Your task to perform on an android device: turn on showing notifications on the lock screen Image 0: 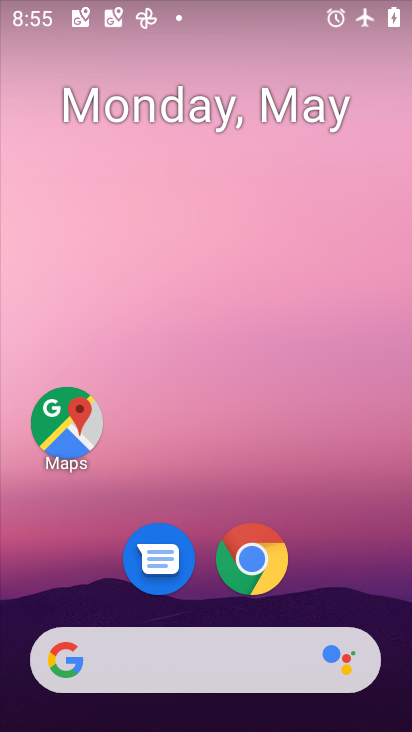
Step 0: drag from (382, 578) to (294, 69)
Your task to perform on an android device: turn on showing notifications on the lock screen Image 1: 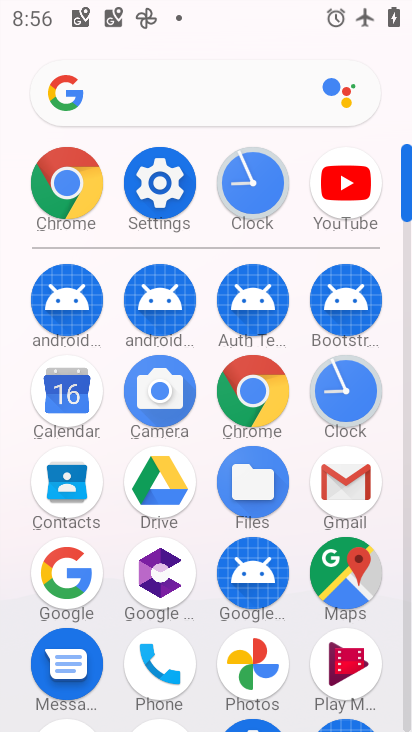
Step 1: click (190, 196)
Your task to perform on an android device: turn on showing notifications on the lock screen Image 2: 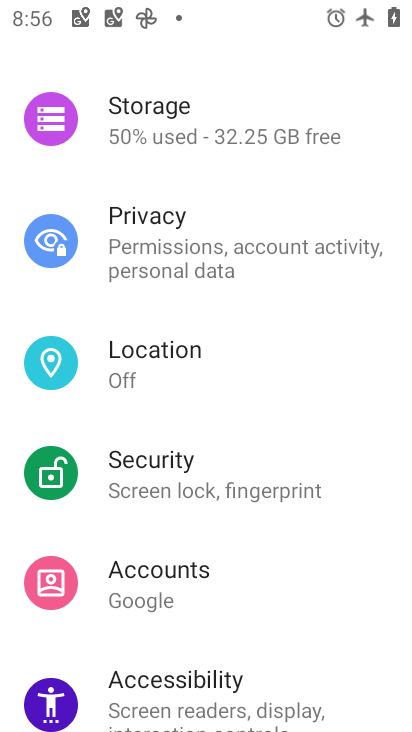
Step 2: drag from (223, 272) to (230, 663)
Your task to perform on an android device: turn on showing notifications on the lock screen Image 3: 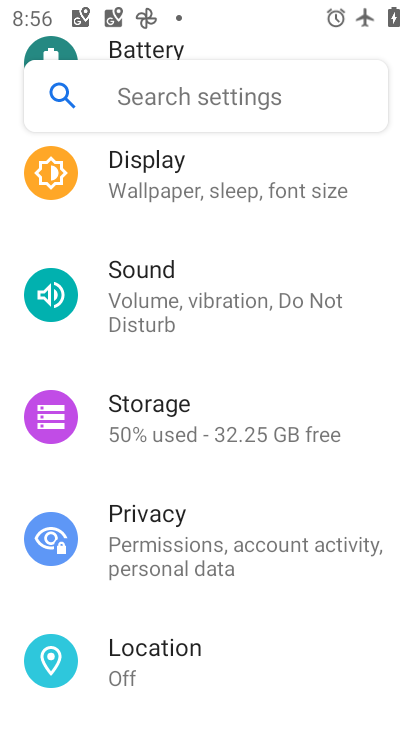
Step 3: drag from (254, 267) to (228, 699)
Your task to perform on an android device: turn on showing notifications on the lock screen Image 4: 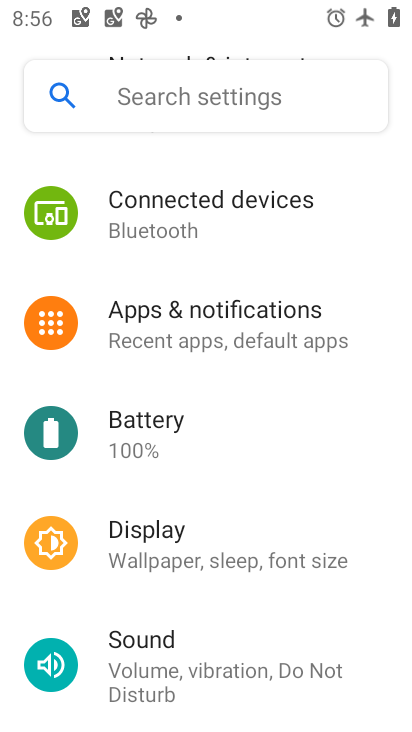
Step 4: click (286, 343)
Your task to perform on an android device: turn on showing notifications on the lock screen Image 5: 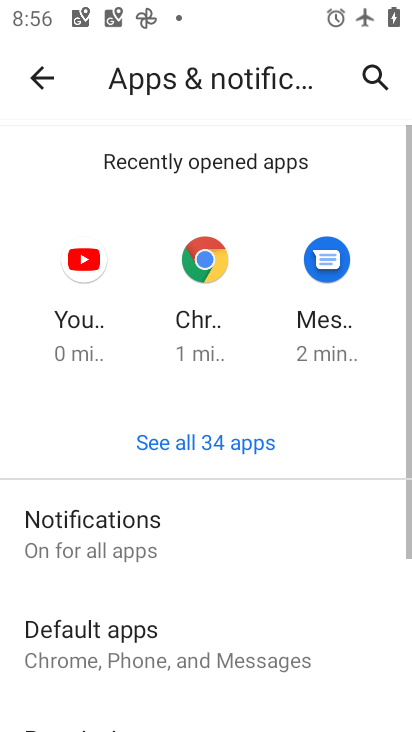
Step 5: click (149, 540)
Your task to perform on an android device: turn on showing notifications on the lock screen Image 6: 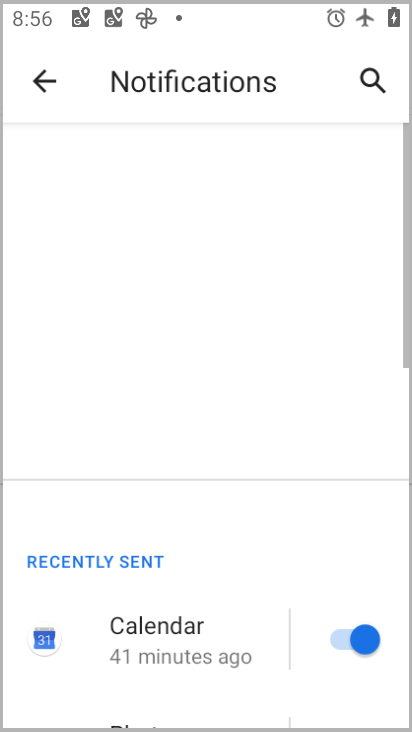
Step 6: drag from (188, 633) to (266, 119)
Your task to perform on an android device: turn on showing notifications on the lock screen Image 7: 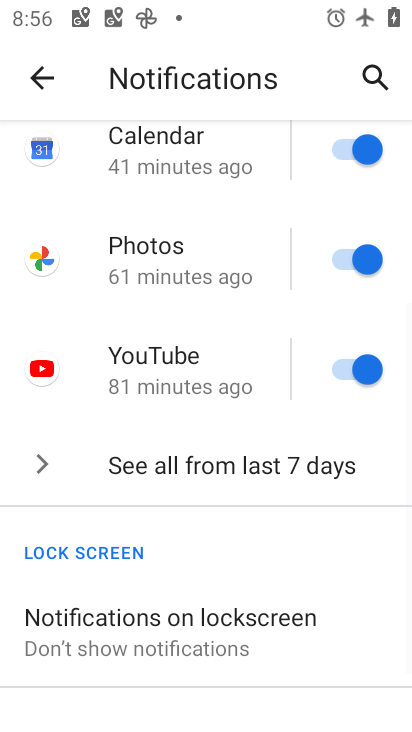
Step 7: drag from (217, 603) to (263, 296)
Your task to perform on an android device: turn on showing notifications on the lock screen Image 8: 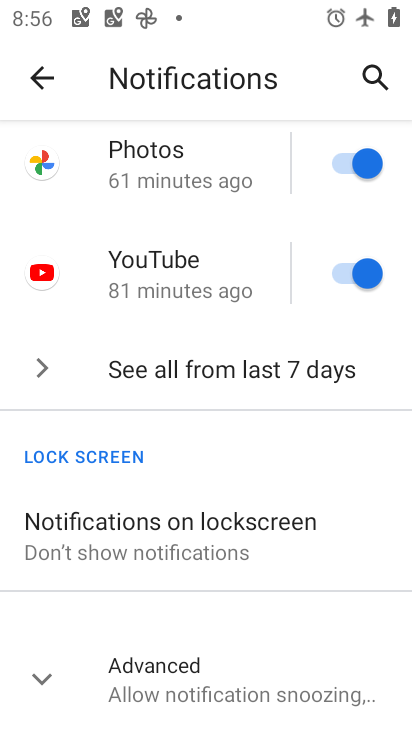
Step 8: click (200, 551)
Your task to perform on an android device: turn on showing notifications on the lock screen Image 9: 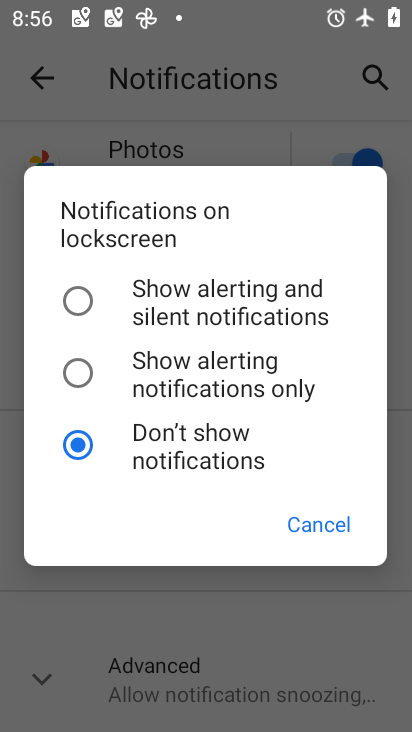
Step 9: click (202, 287)
Your task to perform on an android device: turn on showing notifications on the lock screen Image 10: 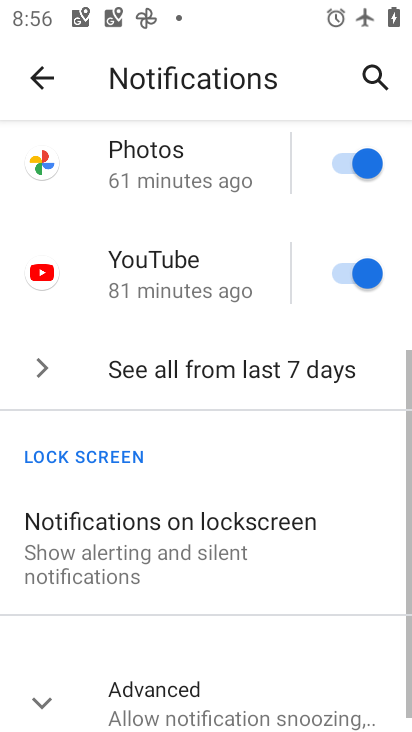
Step 10: task complete